Your task to perform on an android device: Go to wifi settings Image 0: 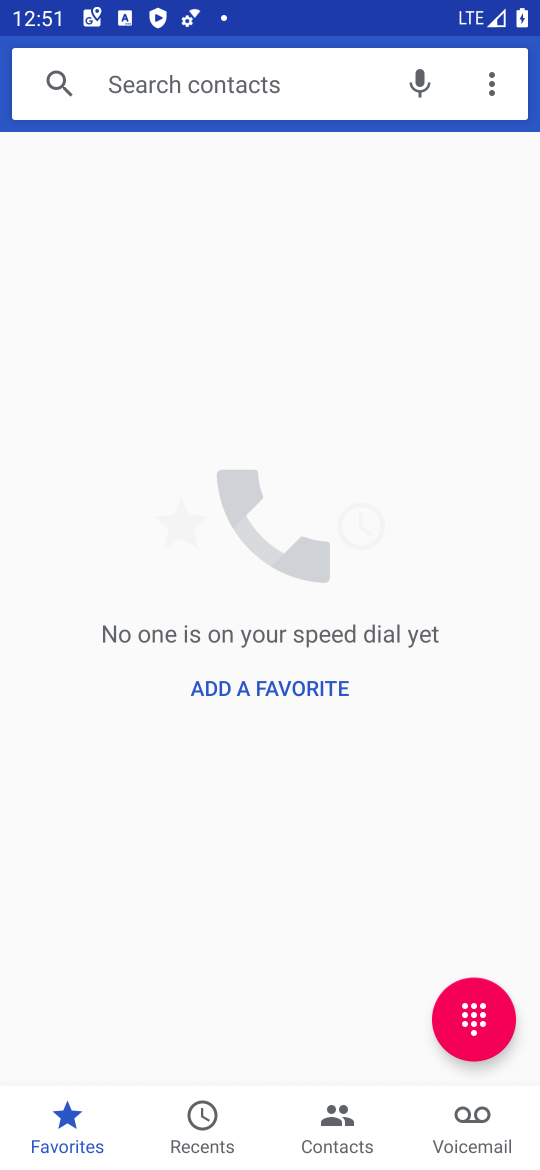
Step 0: press home button
Your task to perform on an android device: Go to wifi settings Image 1: 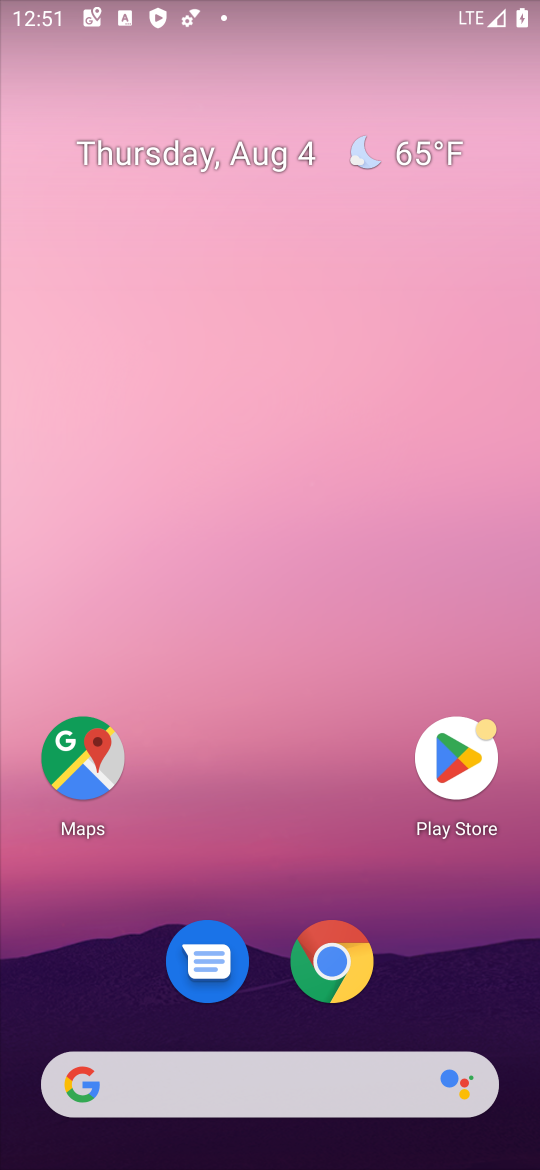
Step 1: drag from (328, 586) to (356, 0)
Your task to perform on an android device: Go to wifi settings Image 2: 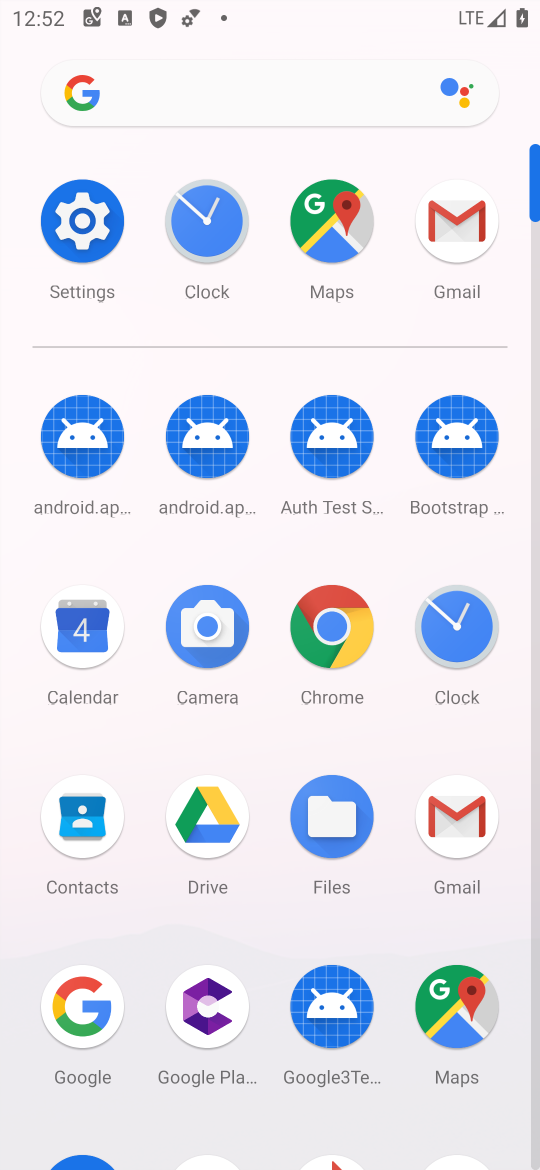
Step 2: click (82, 220)
Your task to perform on an android device: Go to wifi settings Image 3: 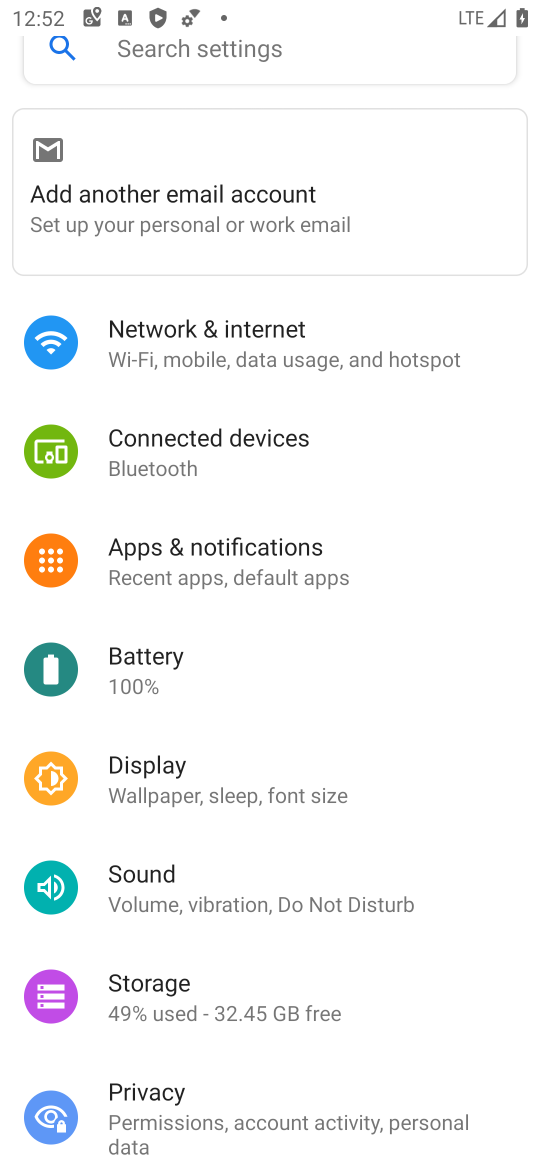
Step 3: click (216, 330)
Your task to perform on an android device: Go to wifi settings Image 4: 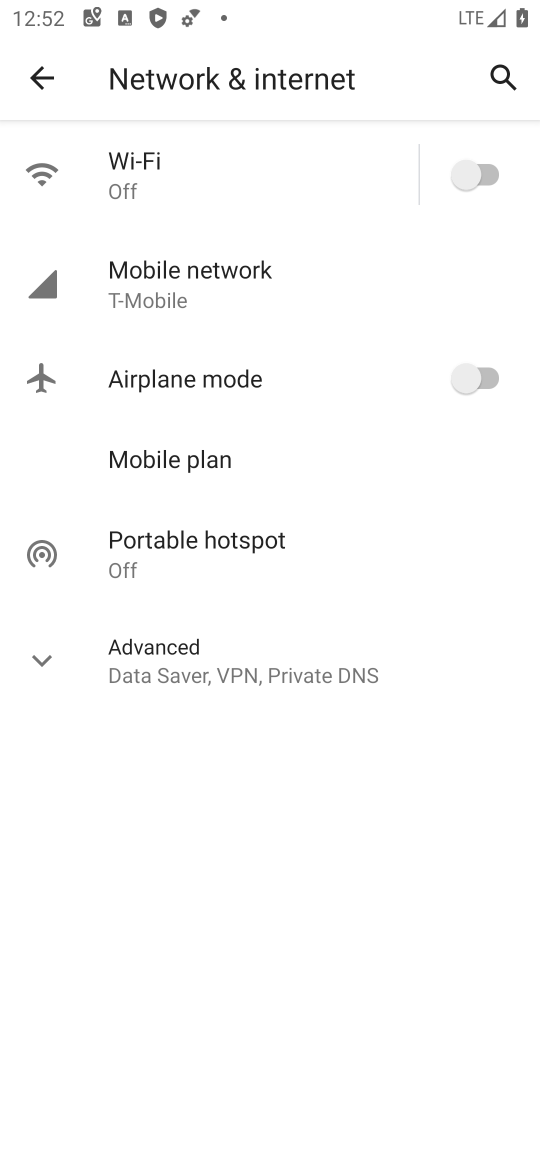
Step 4: click (144, 166)
Your task to perform on an android device: Go to wifi settings Image 5: 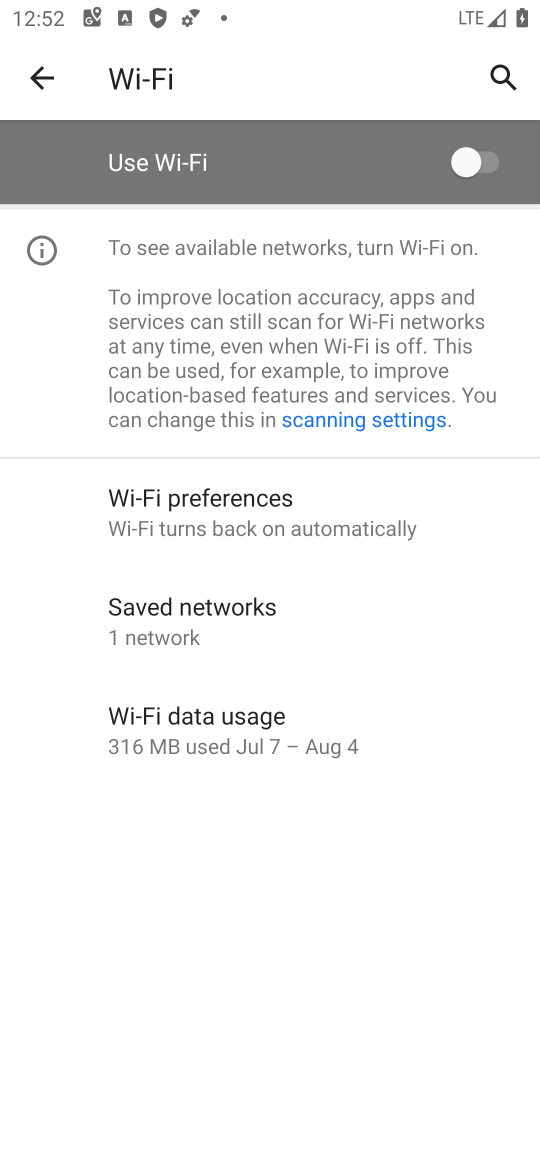
Step 5: task complete